Your task to perform on an android device: check data usage Image 0: 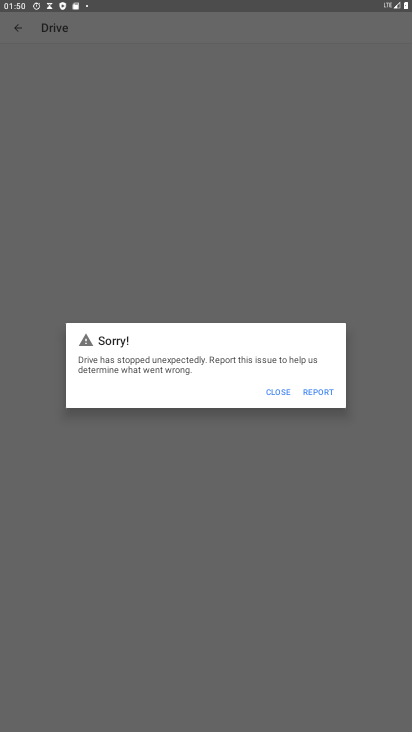
Step 0: press home button
Your task to perform on an android device: check data usage Image 1: 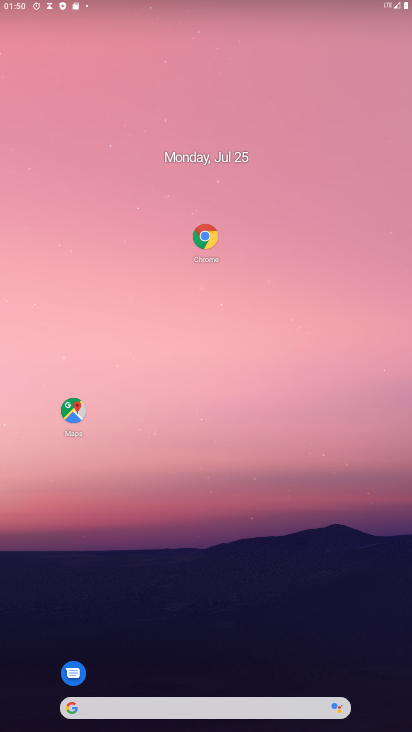
Step 1: drag from (195, 643) to (236, 9)
Your task to perform on an android device: check data usage Image 2: 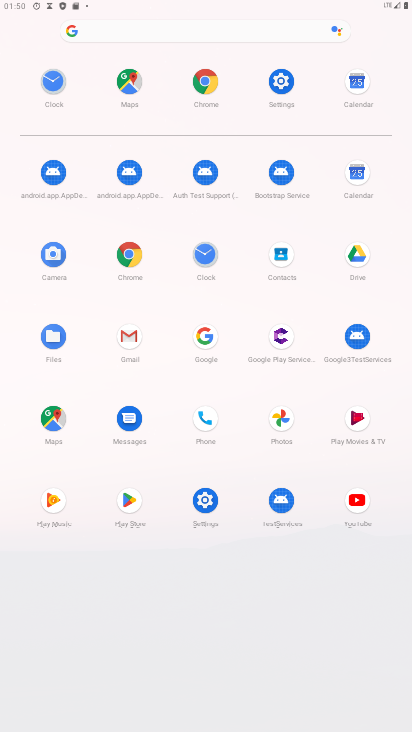
Step 2: click (283, 87)
Your task to perform on an android device: check data usage Image 3: 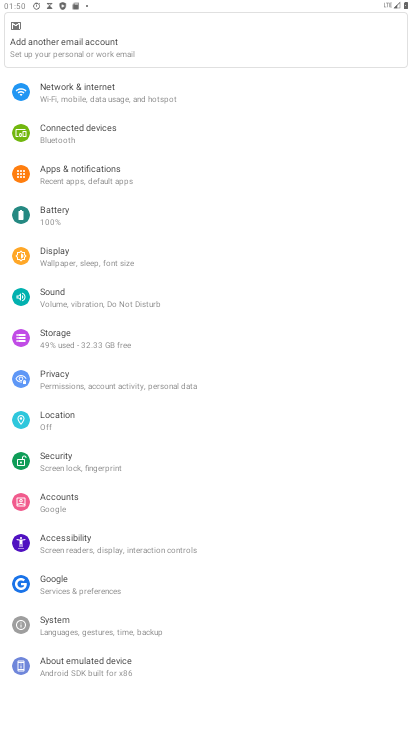
Step 3: click (110, 88)
Your task to perform on an android device: check data usage Image 4: 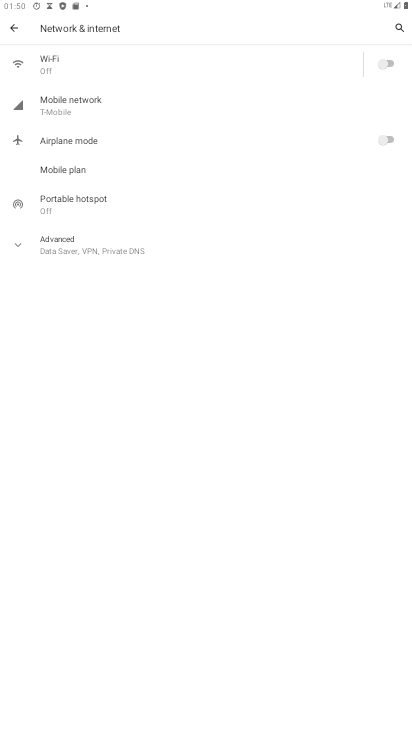
Step 4: click (98, 100)
Your task to perform on an android device: check data usage Image 5: 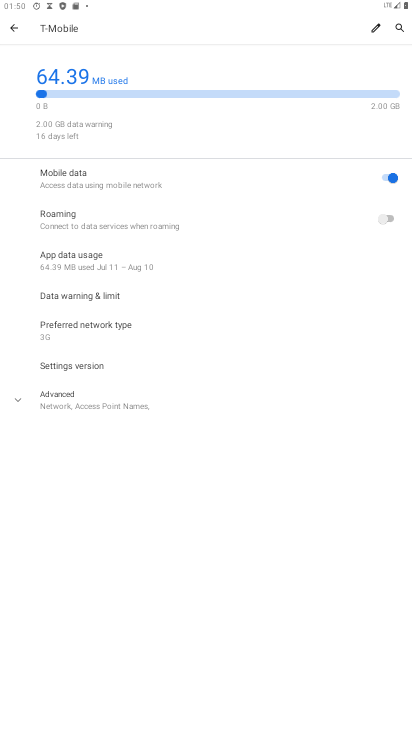
Step 5: press home button
Your task to perform on an android device: check data usage Image 6: 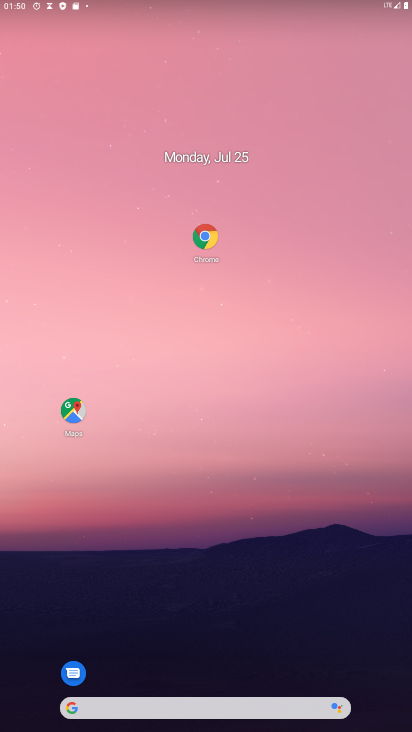
Step 6: drag from (259, 599) to (260, 75)
Your task to perform on an android device: check data usage Image 7: 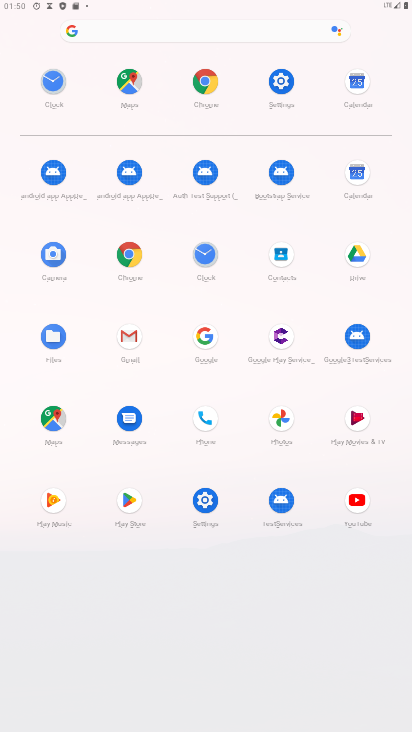
Step 7: click (280, 70)
Your task to perform on an android device: check data usage Image 8: 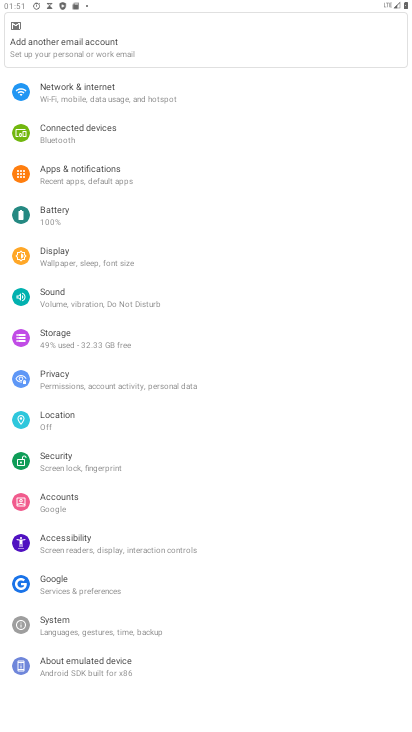
Step 8: click (125, 90)
Your task to perform on an android device: check data usage Image 9: 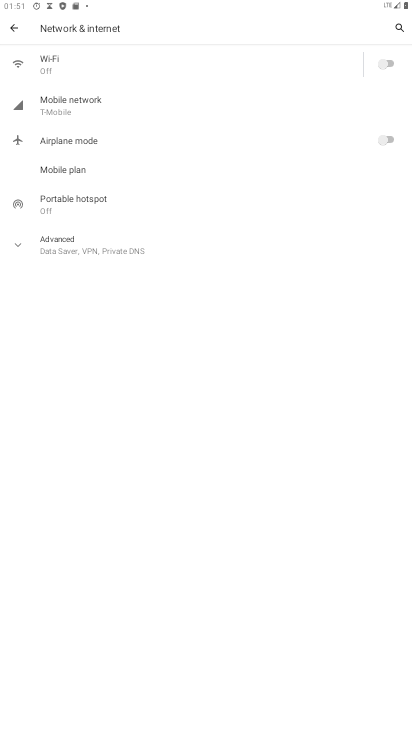
Step 9: click (93, 100)
Your task to perform on an android device: check data usage Image 10: 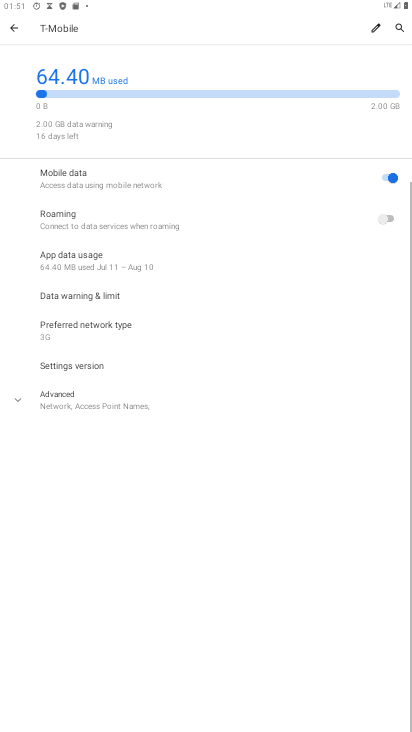
Step 10: task complete